Your task to perform on an android device: toggle notifications settings in the gmail app Image 0: 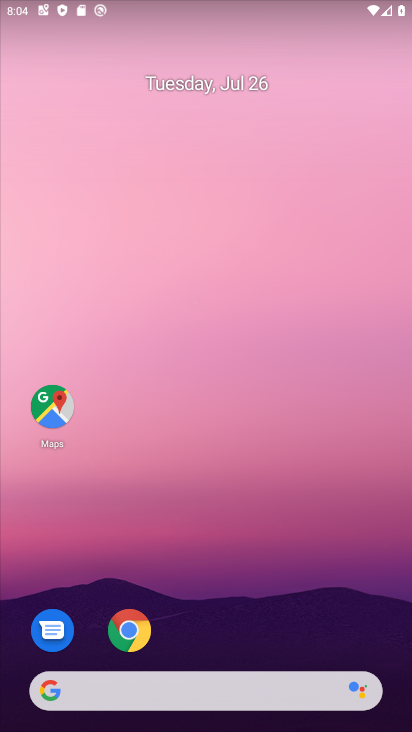
Step 0: drag from (304, 632) to (263, 6)
Your task to perform on an android device: toggle notifications settings in the gmail app Image 1: 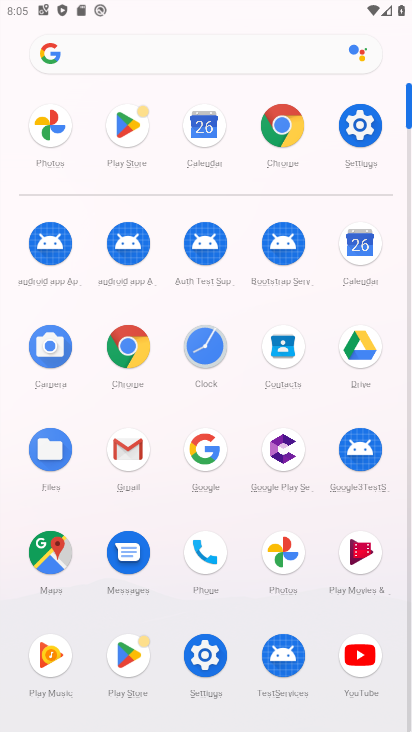
Step 1: click (138, 450)
Your task to perform on an android device: toggle notifications settings in the gmail app Image 2: 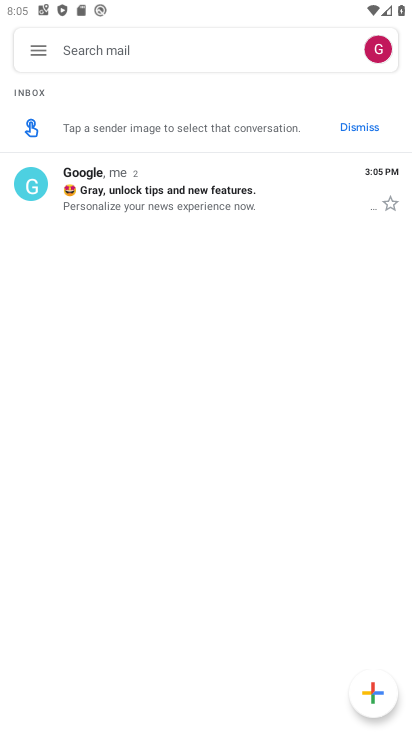
Step 2: click (37, 56)
Your task to perform on an android device: toggle notifications settings in the gmail app Image 3: 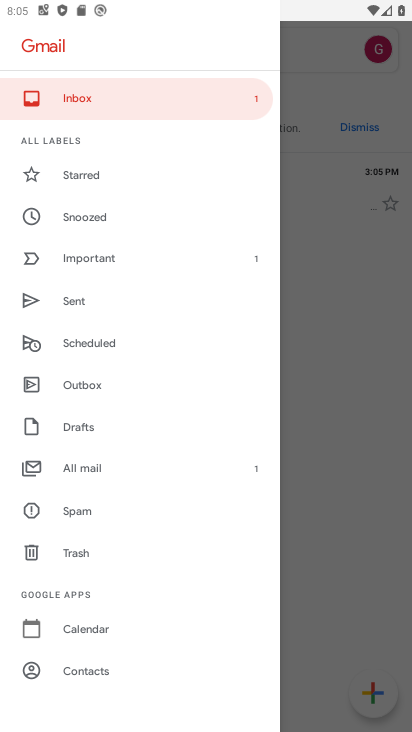
Step 3: drag from (94, 673) to (118, 263)
Your task to perform on an android device: toggle notifications settings in the gmail app Image 4: 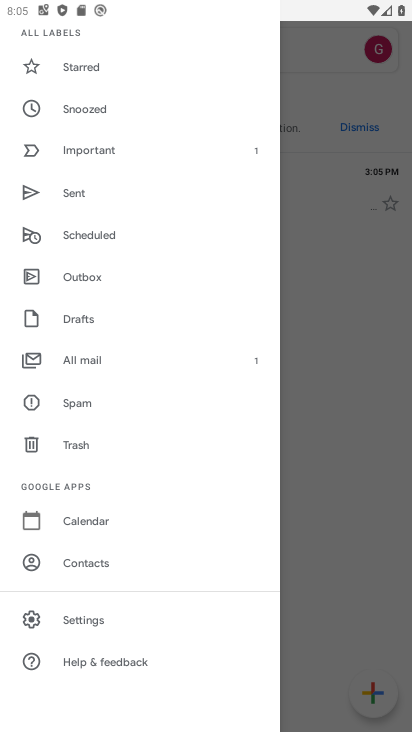
Step 4: click (97, 613)
Your task to perform on an android device: toggle notifications settings in the gmail app Image 5: 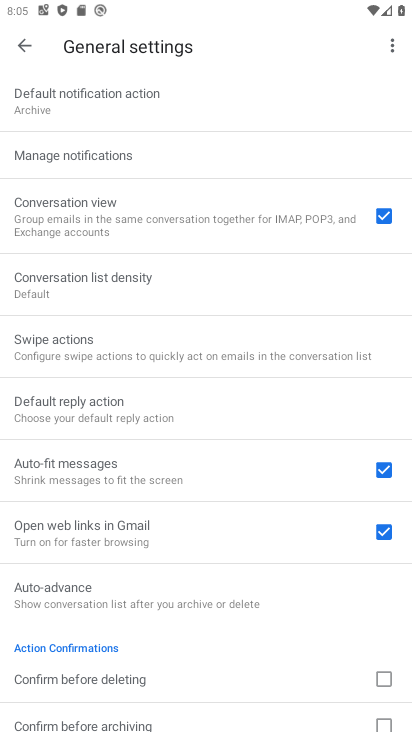
Step 5: task complete